Your task to perform on an android device: empty trash in the gmail app Image 0: 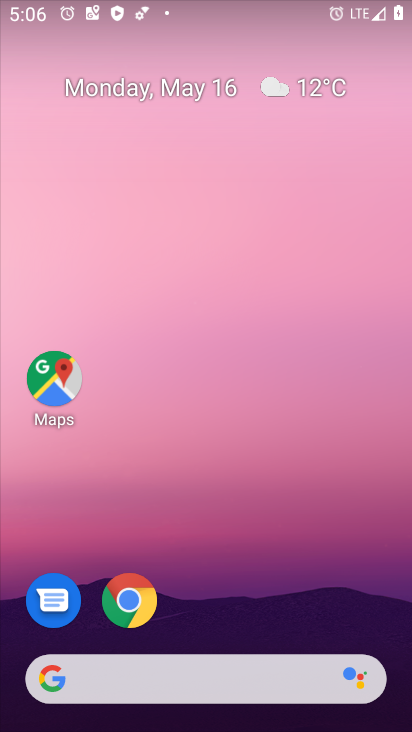
Step 0: drag from (208, 652) to (210, 290)
Your task to perform on an android device: empty trash in the gmail app Image 1: 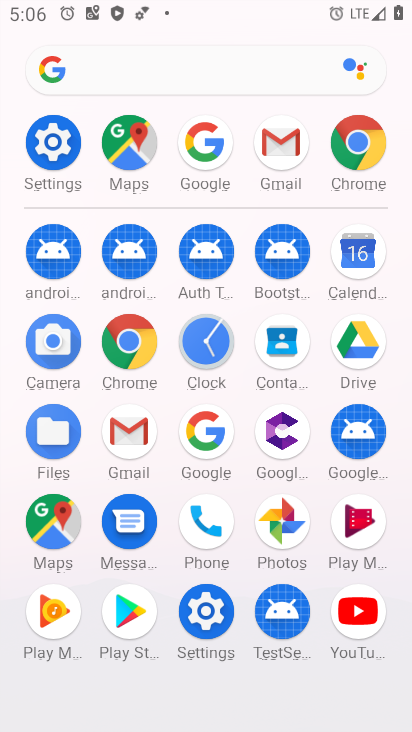
Step 1: click (139, 432)
Your task to perform on an android device: empty trash in the gmail app Image 2: 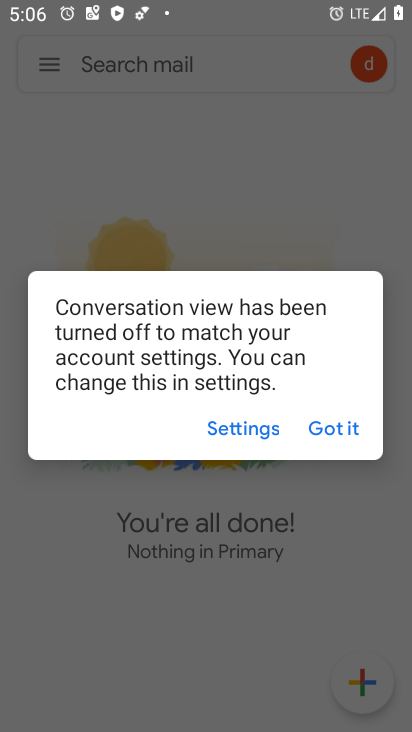
Step 2: click (51, 71)
Your task to perform on an android device: empty trash in the gmail app Image 3: 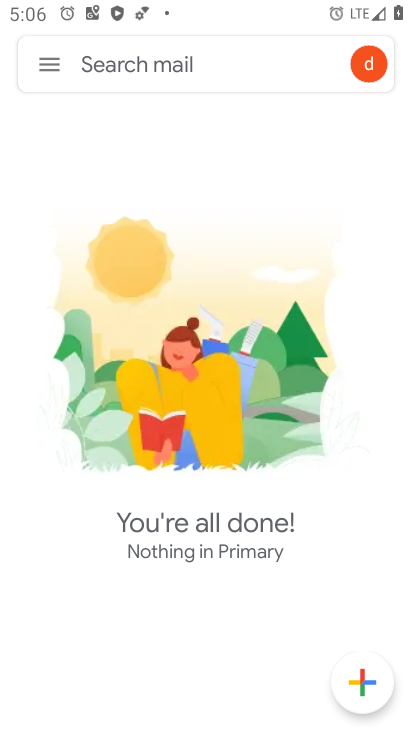
Step 3: click (39, 75)
Your task to perform on an android device: empty trash in the gmail app Image 4: 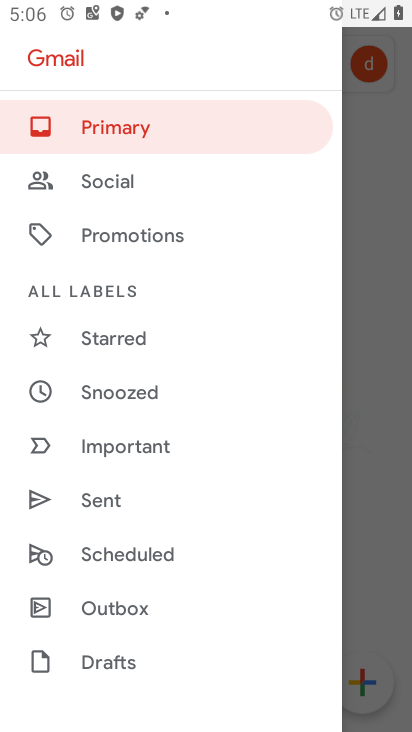
Step 4: drag from (114, 679) to (116, 310)
Your task to perform on an android device: empty trash in the gmail app Image 5: 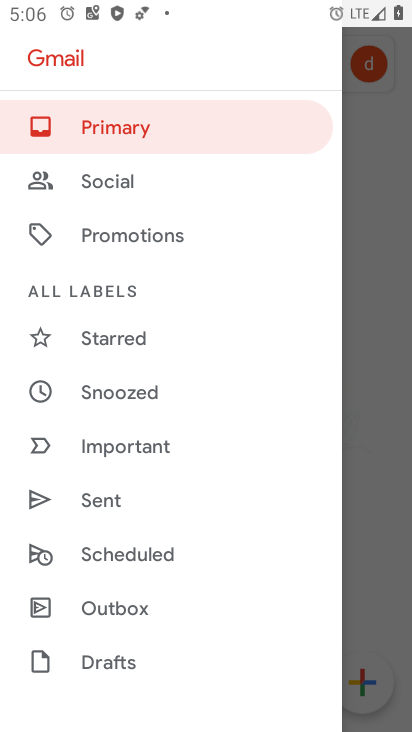
Step 5: drag from (117, 215) to (121, 649)
Your task to perform on an android device: empty trash in the gmail app Image 6: 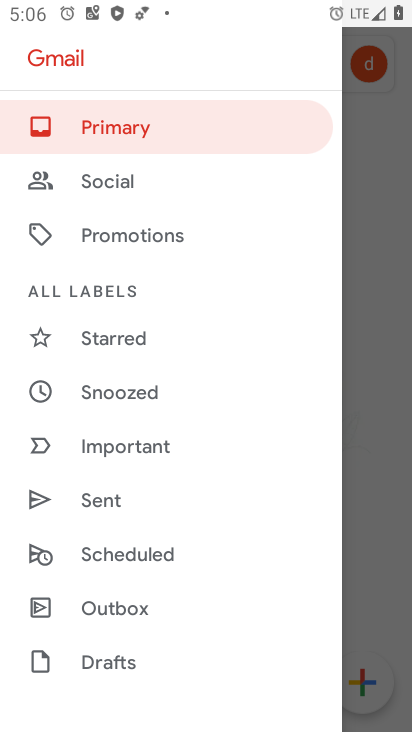
Step 6: drag from (107, 694) to (104, 338)
Your task to perform on an android device: empty trash in the gmail app Image 7: 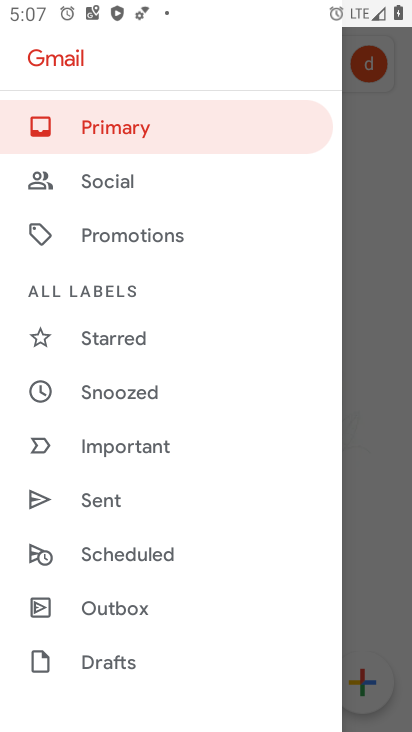
Step 7: drag from (114, 672) to (114, 314)
Your task to perform on an android device: empty trash in the gmail app Image 8: 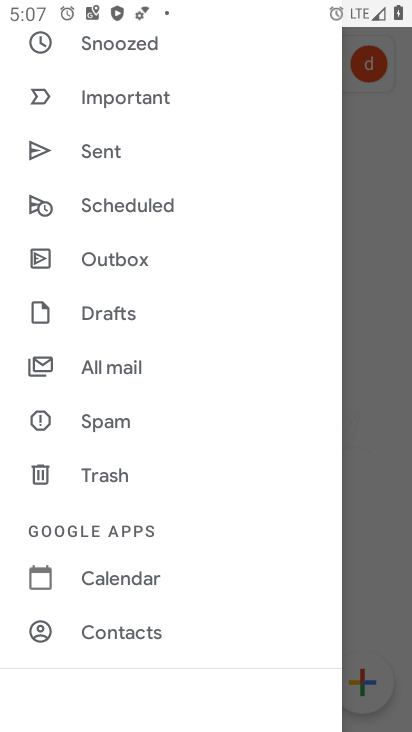
Step 8: click (115, 478)
Your task to perform on an android device: empty trash in the gmail app Image 9: 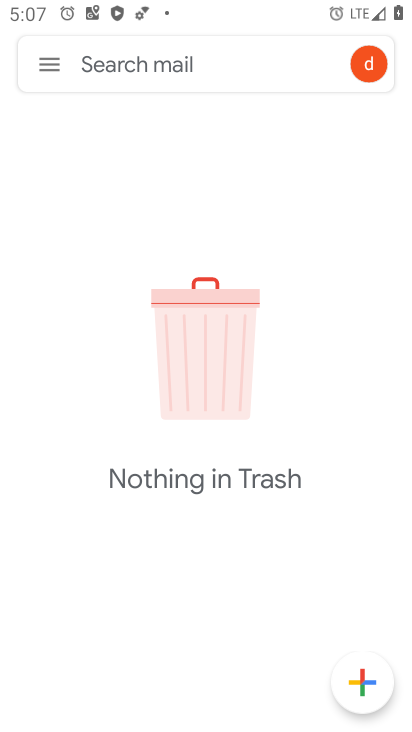
Step 9: task complete